Your task to perform on an android device: turn off wifi Image 0: 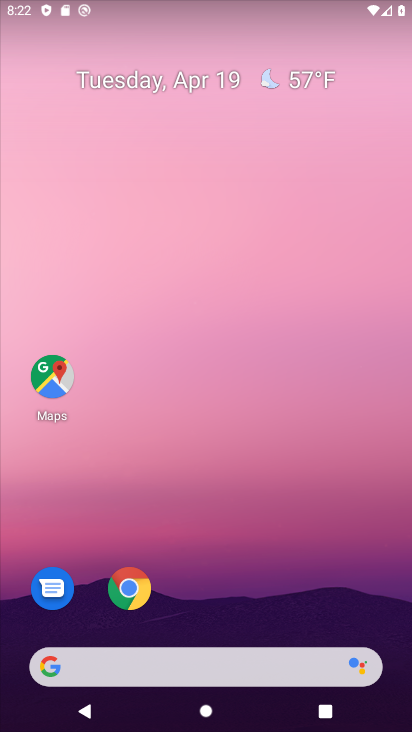
Step 0: drag from (178, 607) to (244, 4)
Your task to perform on an android device: turn off wifi Image 1: 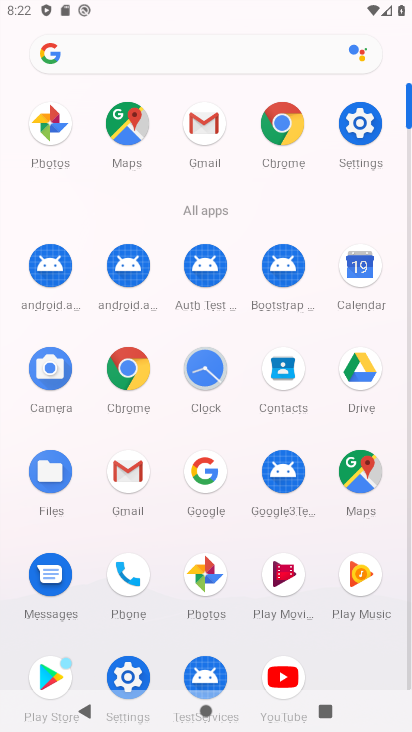
Step 1: click (365, 123)
Your task to perform on an android device: turn off wifi Image 2: 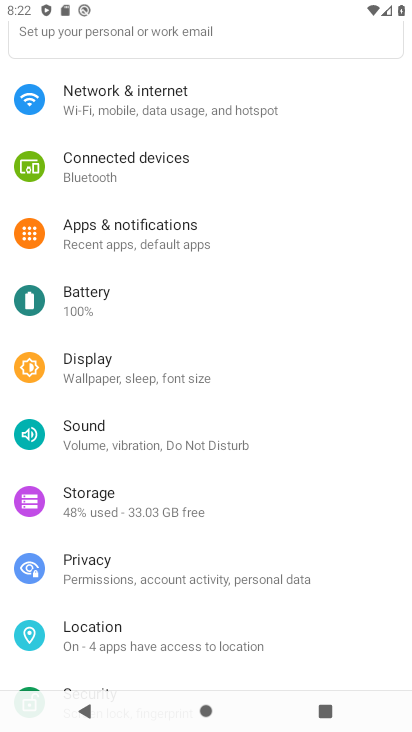
Step 2: click (158, 99)
Your task to perform on an android device: turn off wifi Image 3: 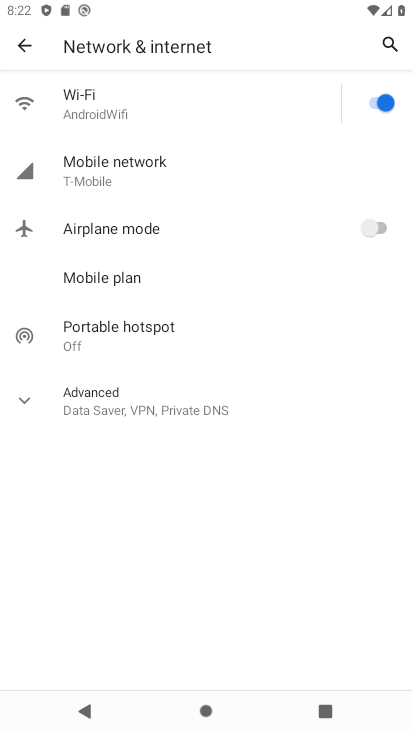
Step 3: click (372, 110)
Your task to perform on an android device: turn off wifi Image 4: 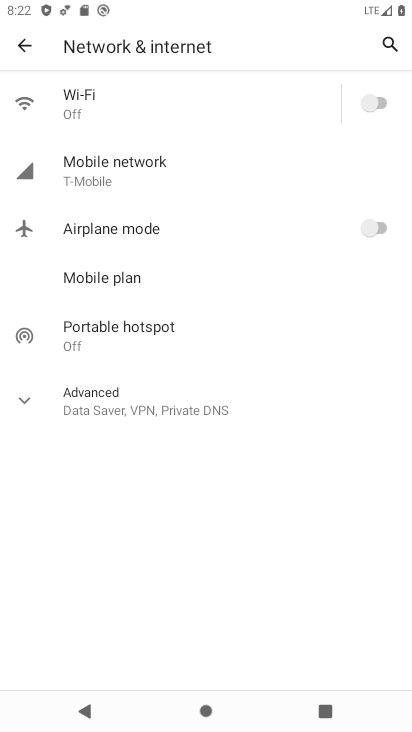
Step 4: task complete